Your task to perform on an android device: turn off smart reply in the gmail app Image 0: 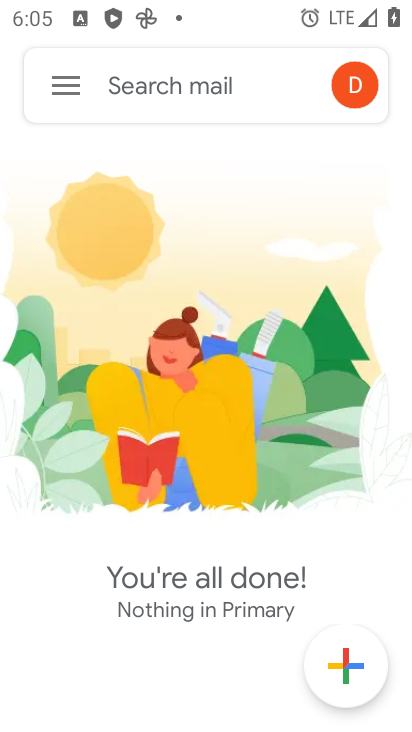
Step 0: press home button
Your task to perform on an android device: turn off smart reply in the gmail app Image 1: 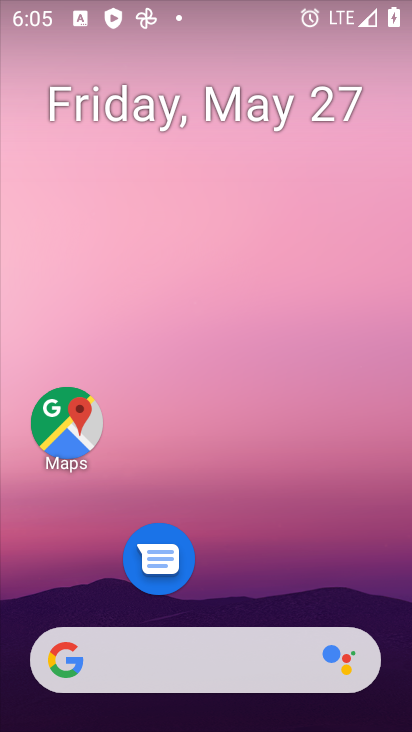
Step 1: drag from (314, 622) to (359, 9)
Your task to perform on an android device: turn off smart reply in the gmail app Image 2: 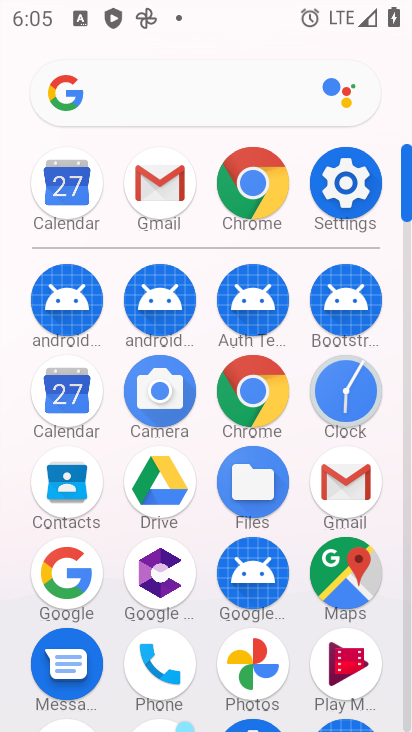
Step 2: click (333, 469)
Your task to perform on an android device: turn off smart reply in the gmail app Image 3: 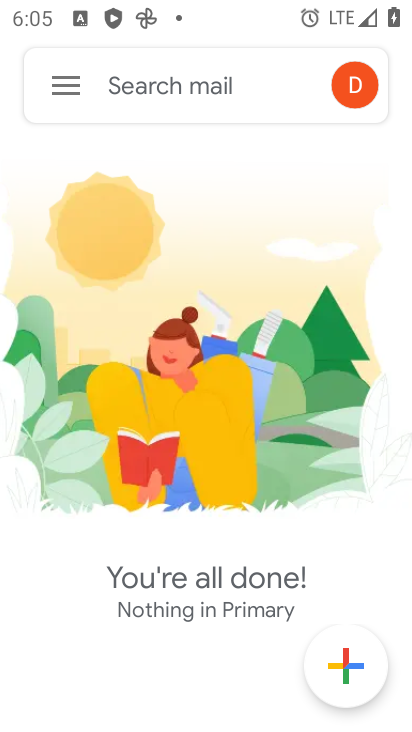
Step 3: click (75, 80)
Your task to perform on an android device: turn off smart reply in the gmail app Image 4: 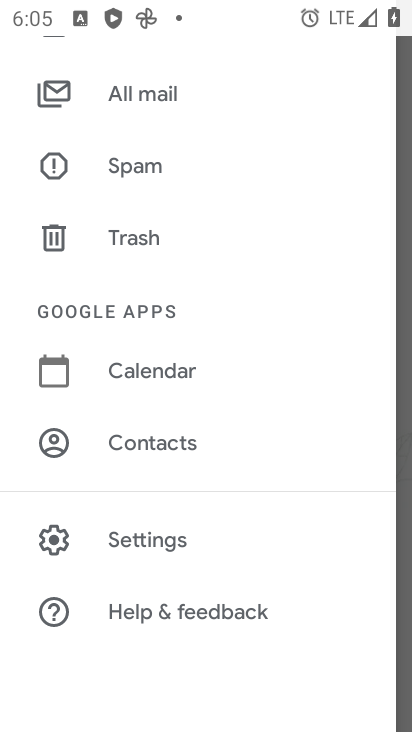
Step 4: click (219, 528)
Your task to perform on an android device: turn off smart reply in the gmail app Image 5: 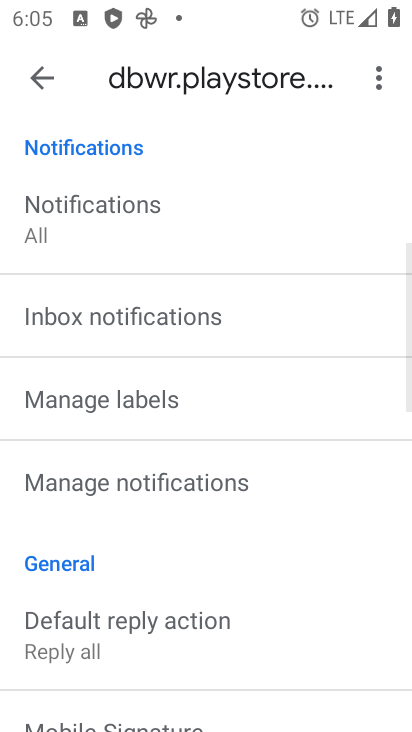
Step 5: drag from (215, 596) to (303, 88)
Your task to perform on an android device: turn off smart reply in the gmail app Image 6: 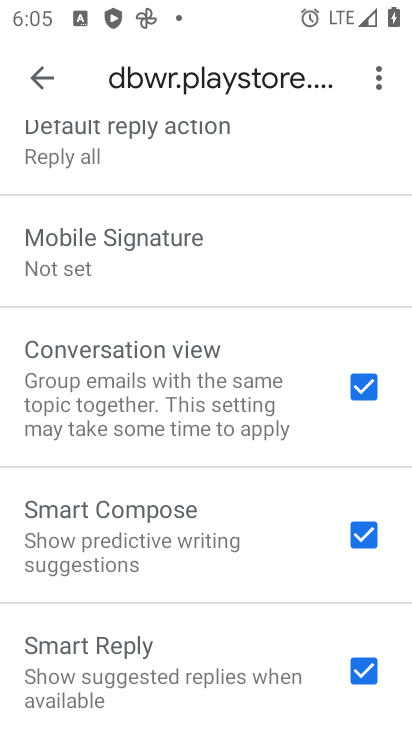
Step 6: click (367, 669)
Your task to perform on an android device: turn off smart reply in the gmail app Image 7: 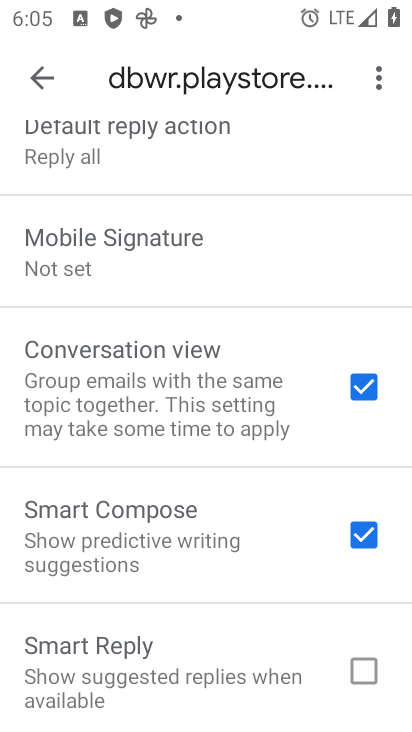
Step 7: task complete